Your task to perform on an android device: Is it going to rain this weekend? Image 0: 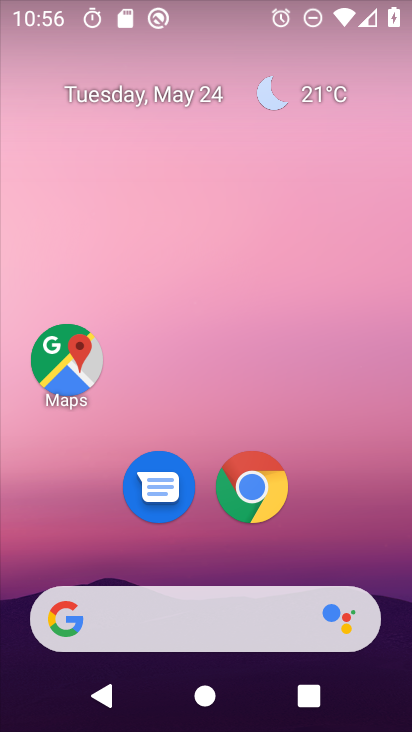
Step 0: click (325, 95)
Your task to perform on an android device: Is it going to rain this weekend? Image 1: 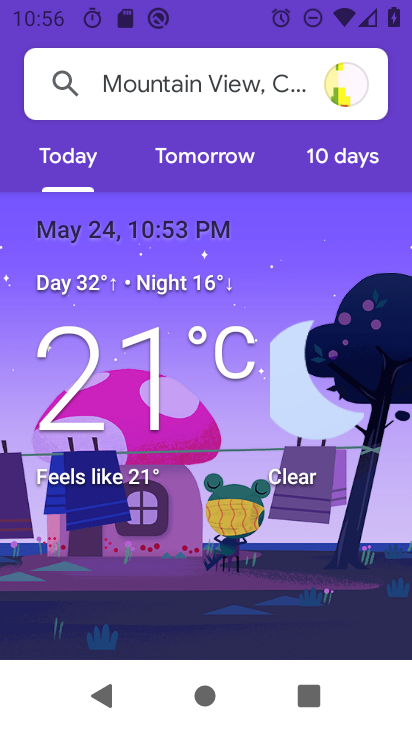
Step 1: click (336, 163)
Your task to perform on an android device: Is it going to rain this weekend? Image 2: 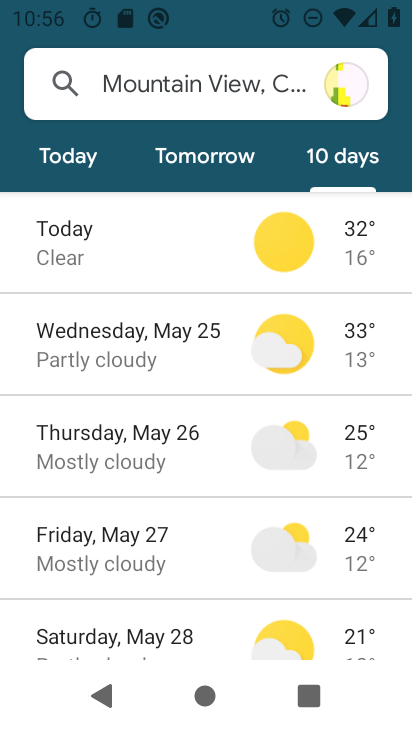
Step 2: task complete